Your task to perform on an android device: Go to internet settings Image 0: 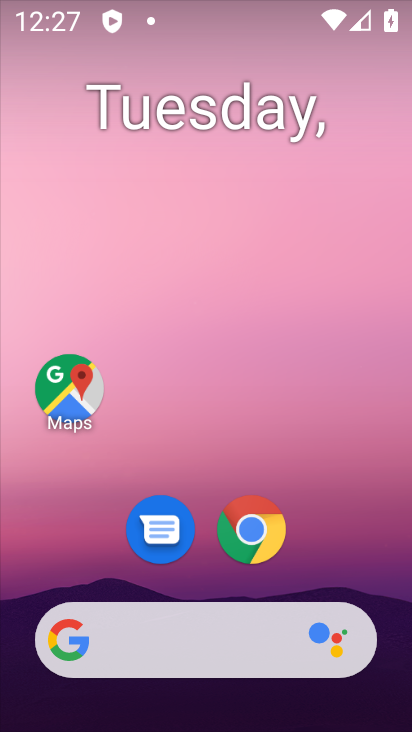
Step 0: drag from (352, 512) to (321, 35)
Your task to perform on an android device: Go to internet settings Image 1: 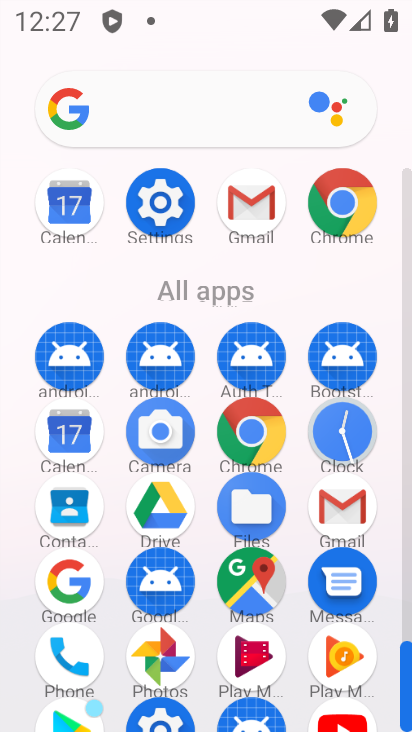
Step 1: click (174, 214)
Your task to perform on an android device: Go to internet settings Image 2: 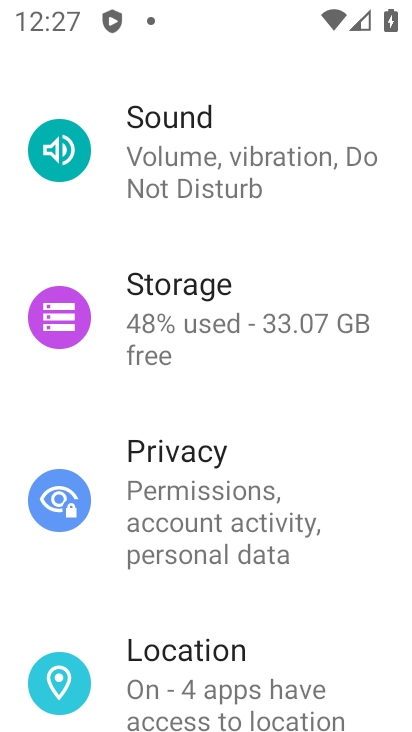
Step 2: drag from (206, 136) to (238, 496)
Your task to perform on an android device: Go to internet settings Image 3: 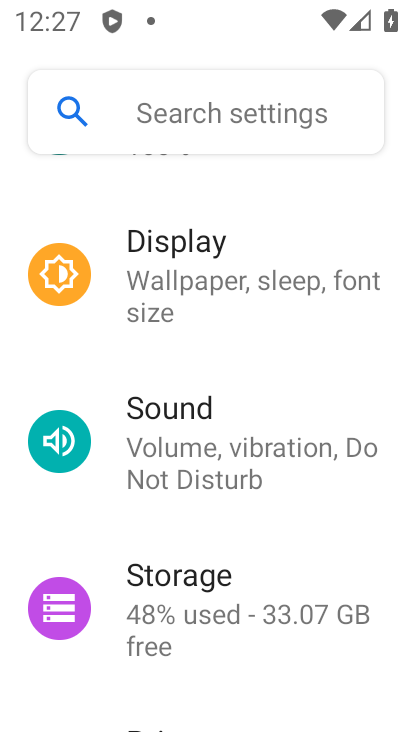
Step 3: drag from (228, 254) to (223, 532)
Your task to perform on an android device: Go to internet settings Image 4: 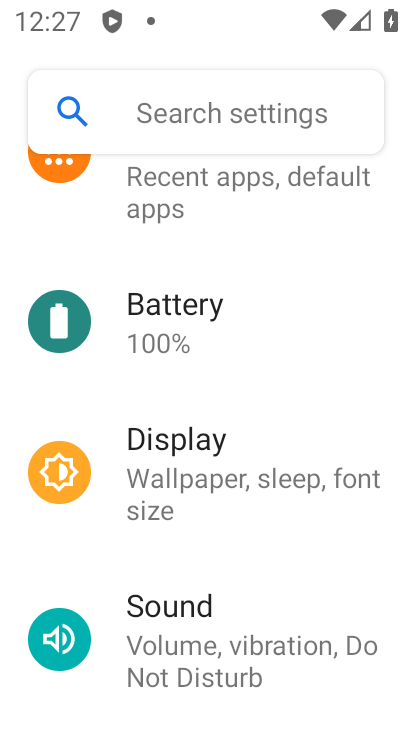
Step 4: drag from (272, 285) to (275, 532)
Your task to perform on an android device: Go to internet settings Image 5: 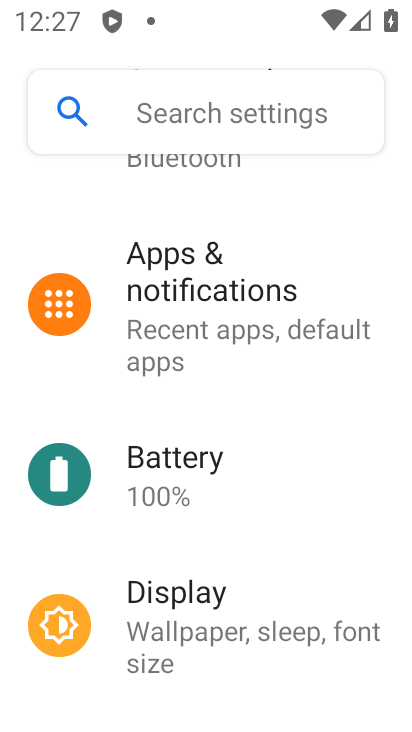
Step 5: drag from (297, 302) to (329, 604)
Your task to perform on an android device: Go to internet settings Image 6: 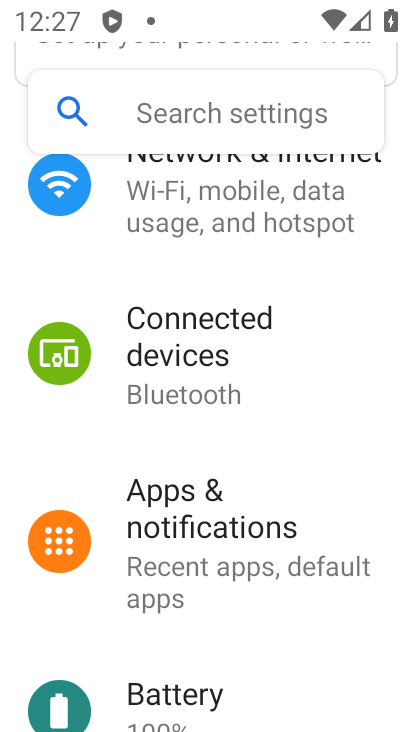
Step 6: drag from (363, 377) to (335, 704)
Your task to perform on an android device: Go to internet settings Image 7: 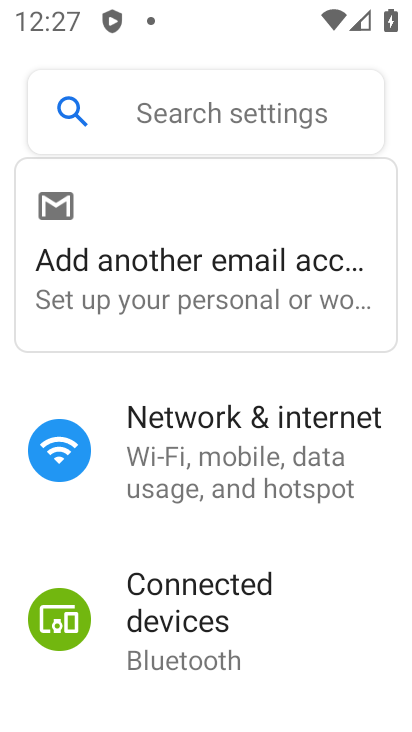
Step 7: drag from (280, 472) to (281, 631)
Your task to perform on an android device: Go to internet settings Image 8: 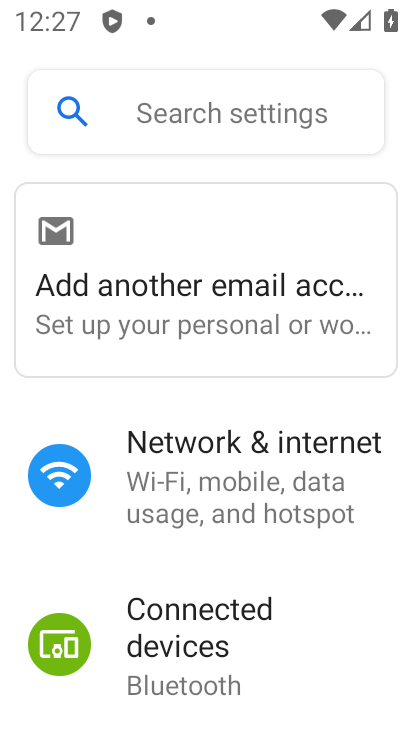
Step 8: click (227, 475)
Your task to perform on an android device: Go to internet settings Image 9: 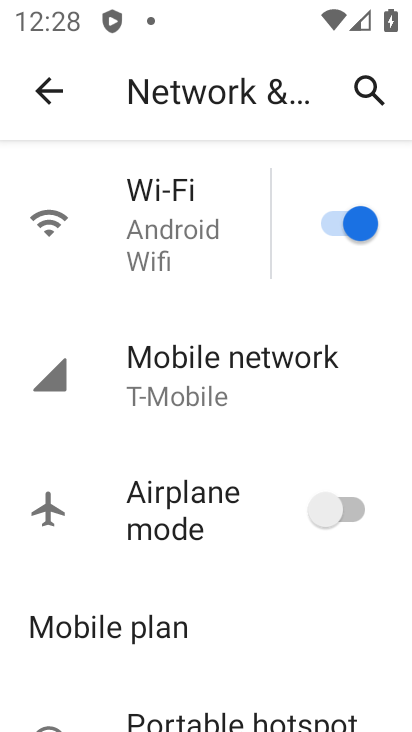
Step 9: click (182, 358)
Your task to perform on an android device: Go to internet settings Image 10: 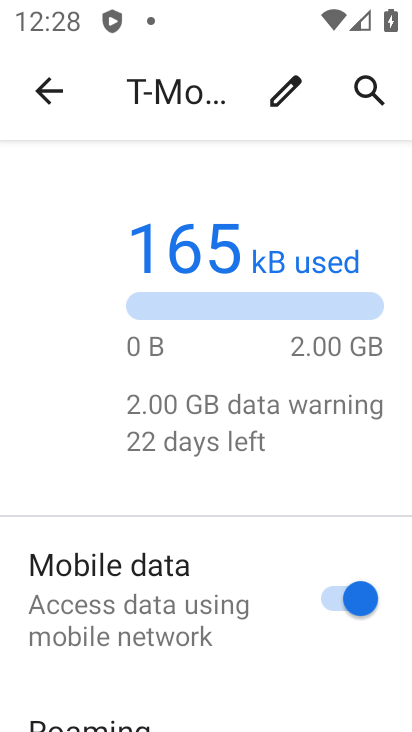
Step 10: task complete